Your task to perform on an android device: set the timer Image 0: 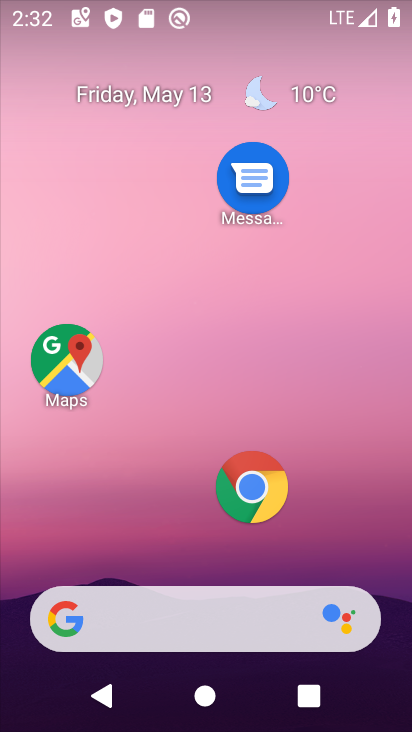
Step 0: drag from (120, 562) to (147, 209)
Your task to perform on an android device: set the timer Image 1: 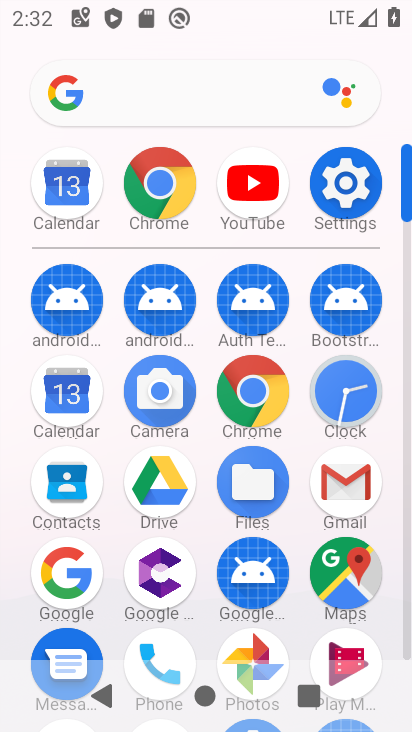
Step 1: click (342, 393)
Your task to perform on an android device: set the timer Image 2: 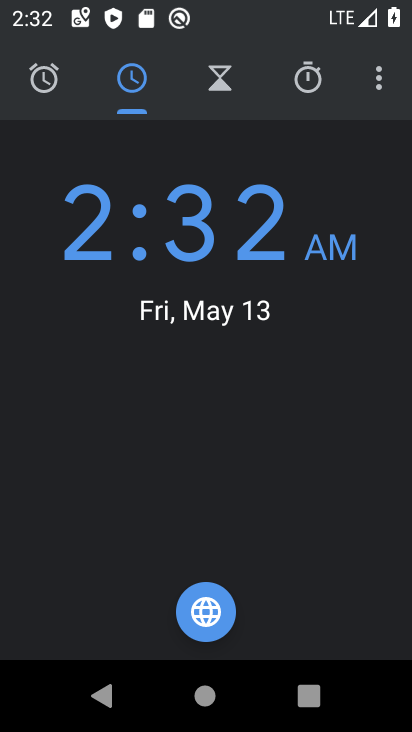
Step 2: click (218, 83)
Your task to perform on an android device: set the timer Image 3: 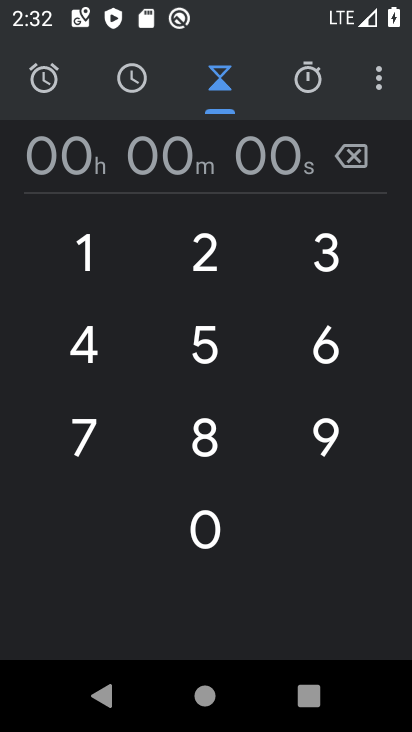
Step 3: click (207, 263)
Your task to perform on an android device: set the timer Image 4: 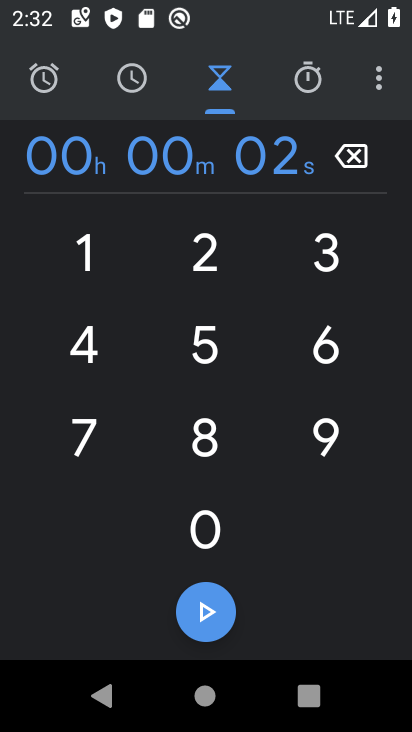
Step 4: click (209, 345)
Your task to perform on an android device: set the timer Image 5: 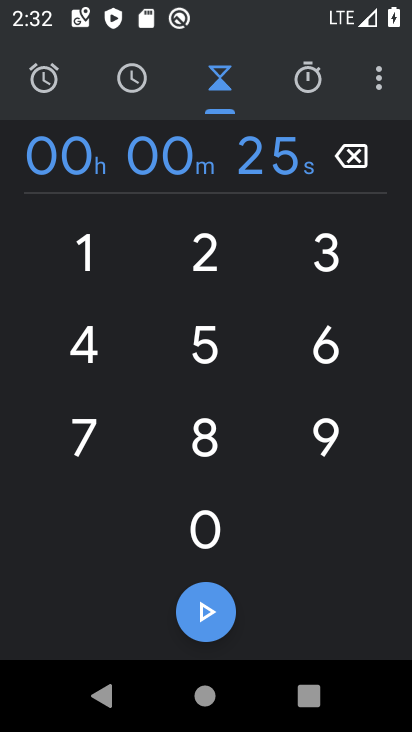
Step 5: click (321, 353)
Your task to perform on an android device: set the timer Image 6: 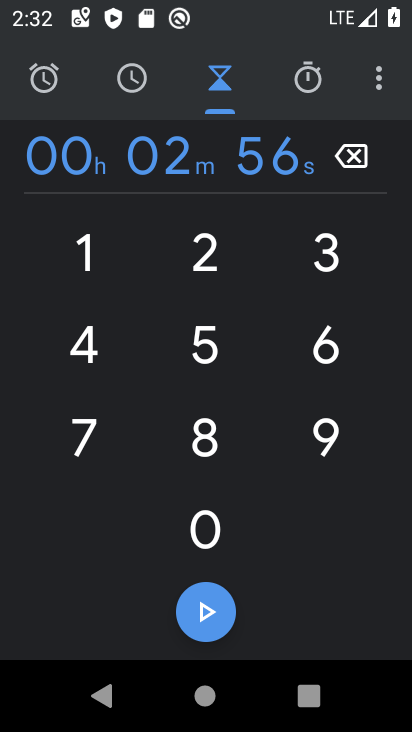
Step 6: click (202, 428)
Your task to perform on an android device: set the timer Image 7: 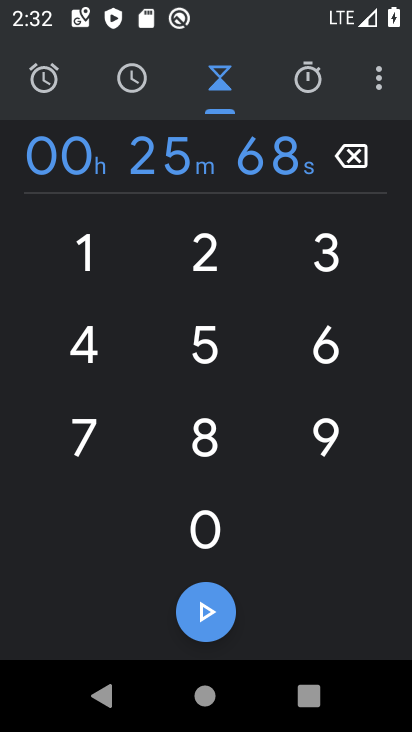
Step 7: task complete